Your task to perform on an android device: delete the emails in spam in the gmail app Image 0: 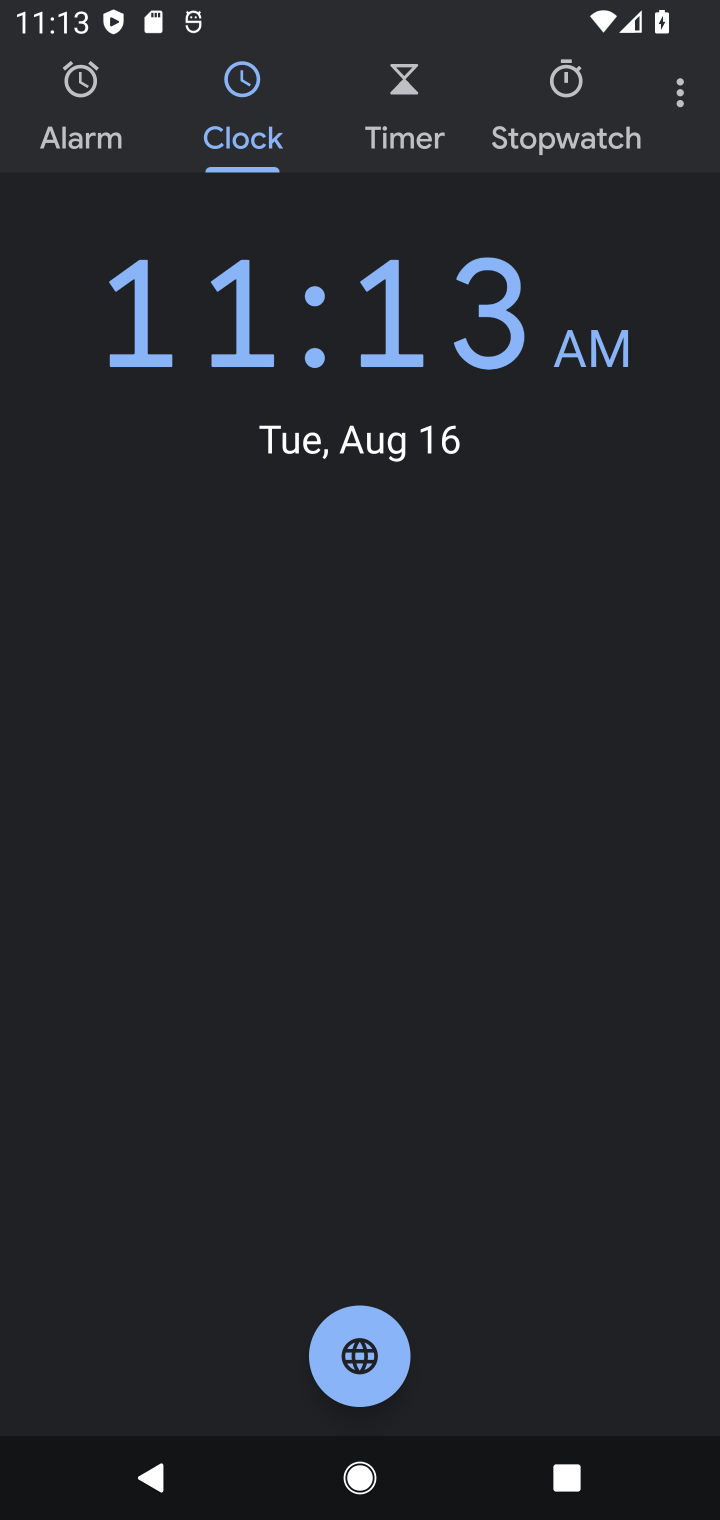
Step 0: press home button
Your task to perform on an android device: delete the emails in spam in the gmail app Image 1: 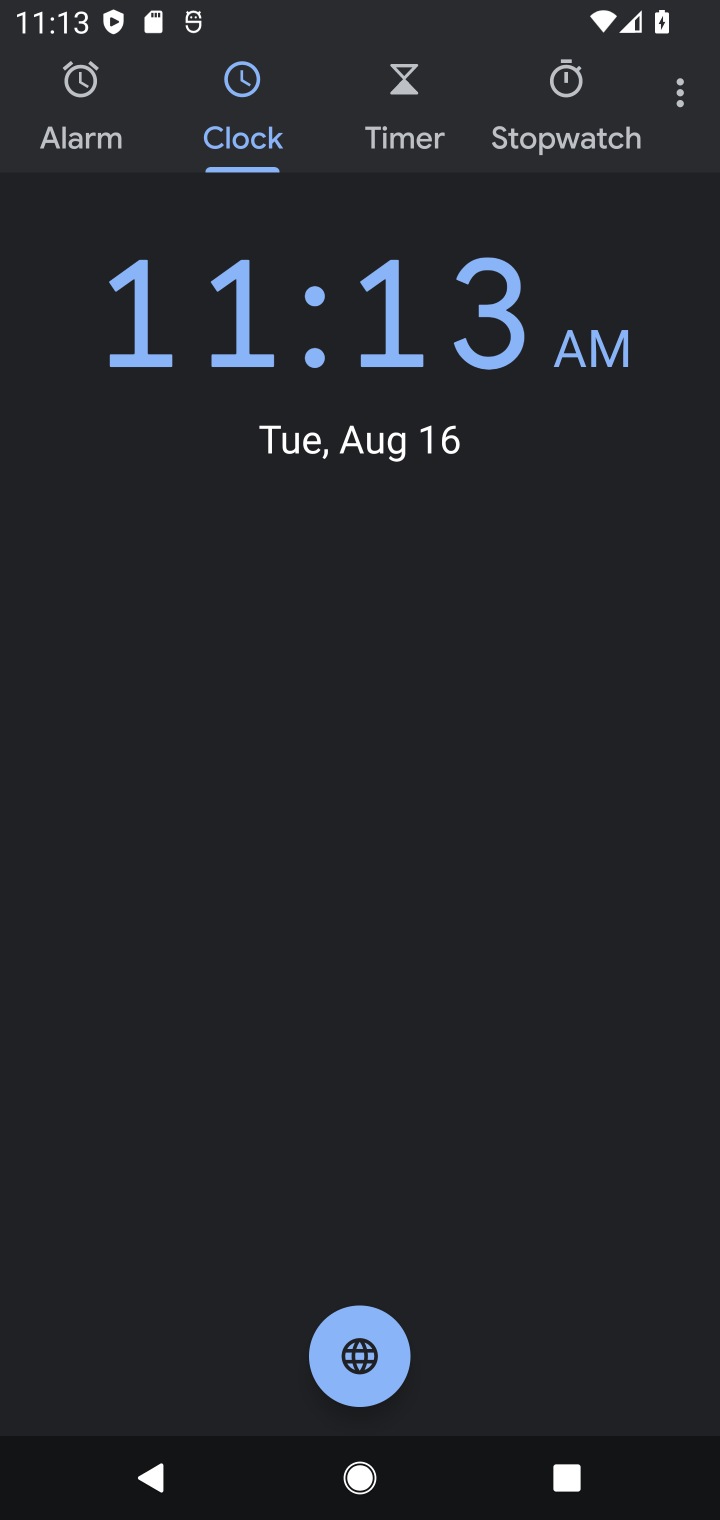
Step 1: press home button
Your task to perform on an android device: delete the emails in spam in the gmail app Image 2: 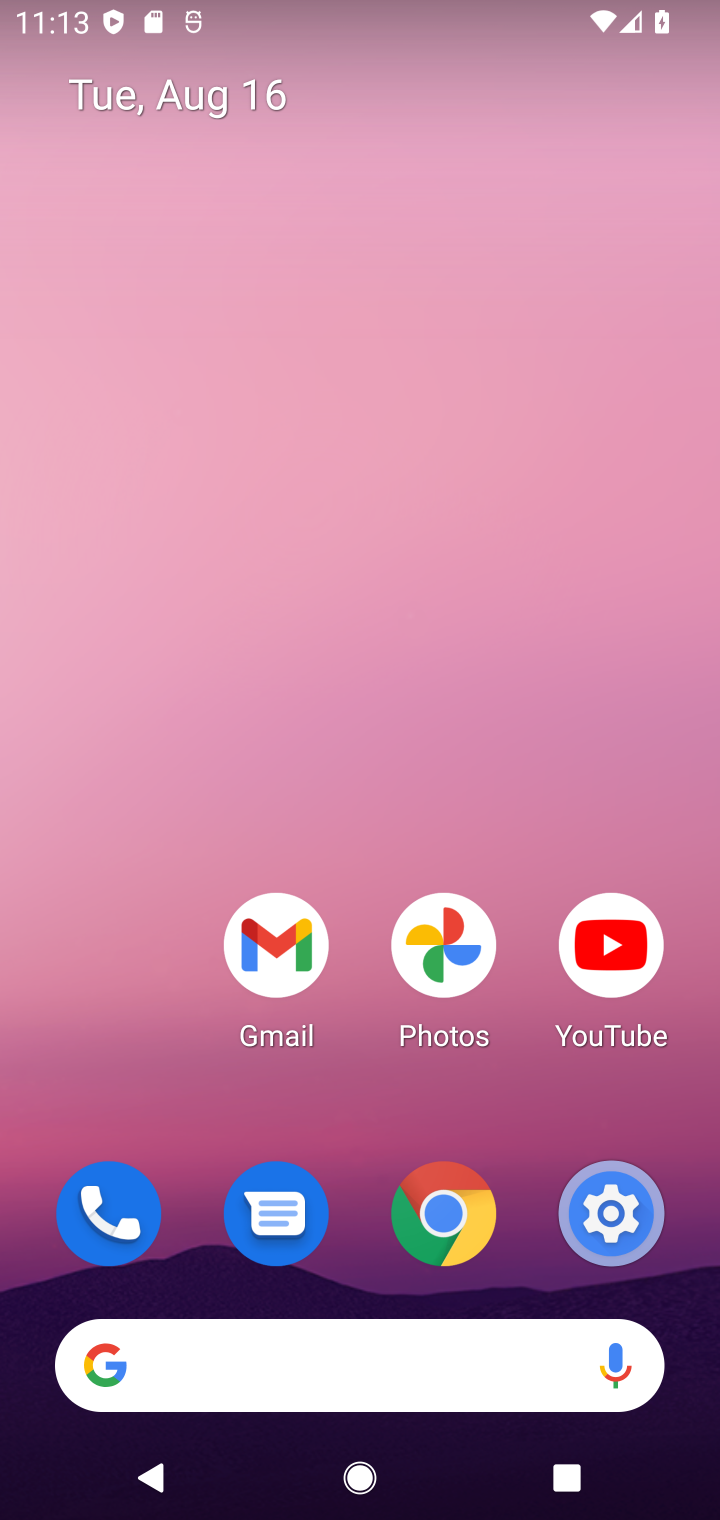
Step 2: click (267, 959)
Your task to perform on an android device: delete the emails in spam in the gmail app Image 3: 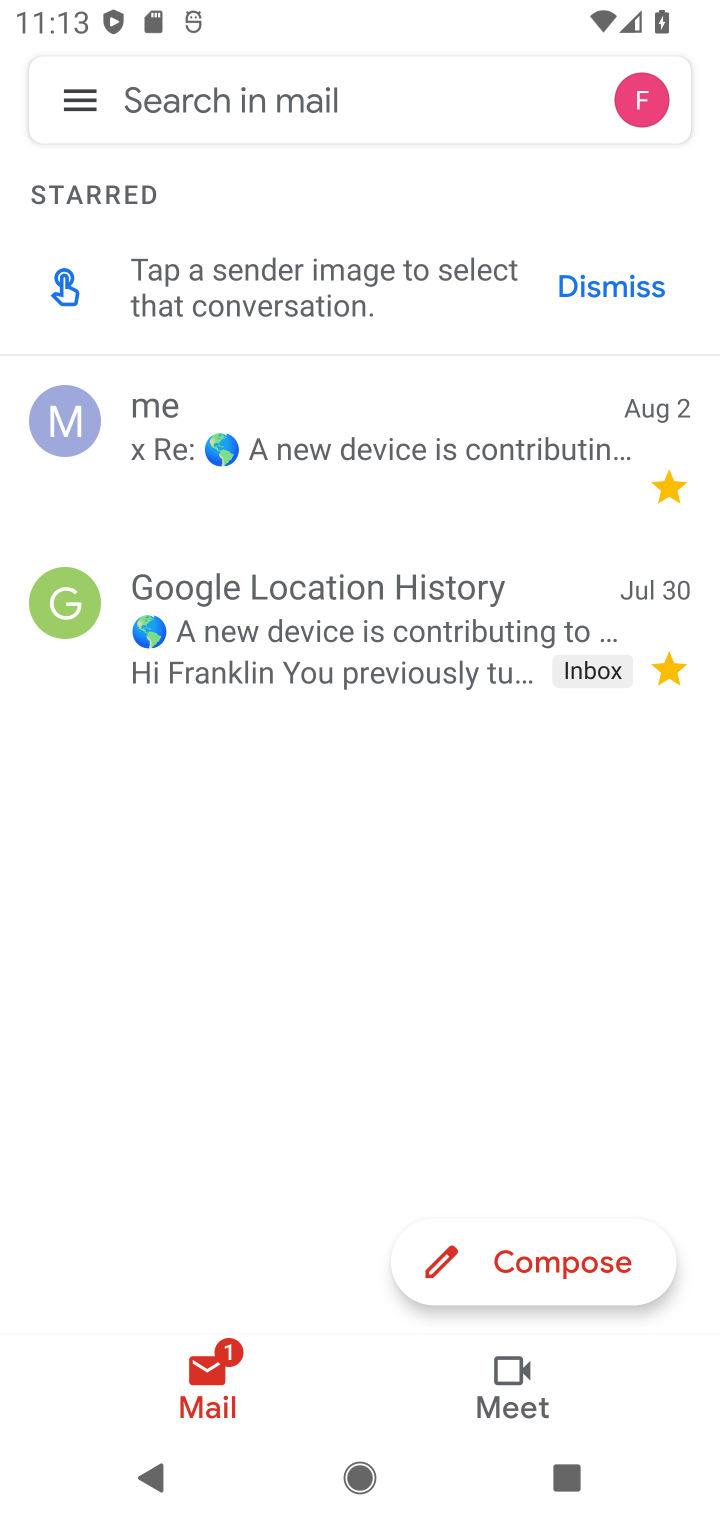
Step 3: click (70, 96)
Your task to perform on an android device: delete the emails in spam in the gmail app Image 4: 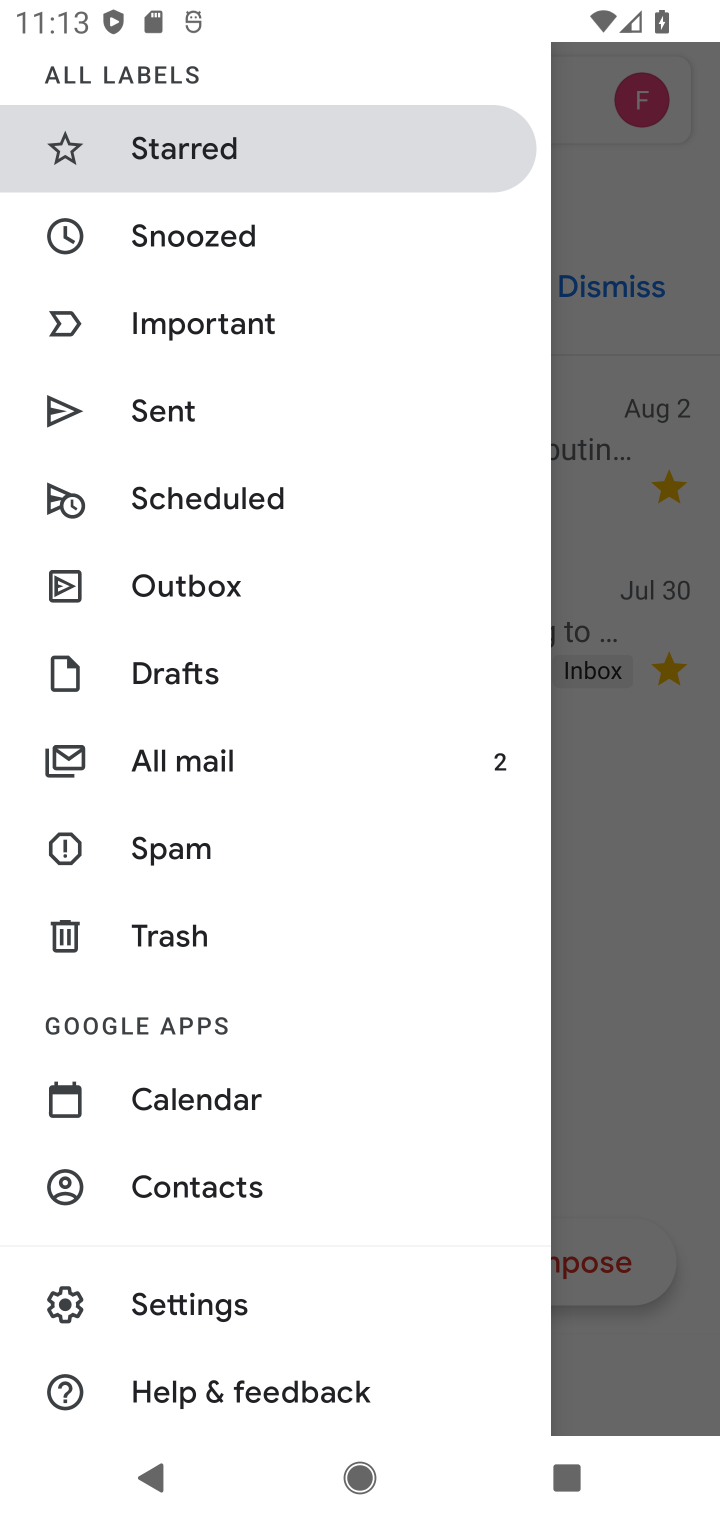
Step 4: click (132, 866)
Your task to perform on an android device: delete the emails in spam in the gmail app Image 5: 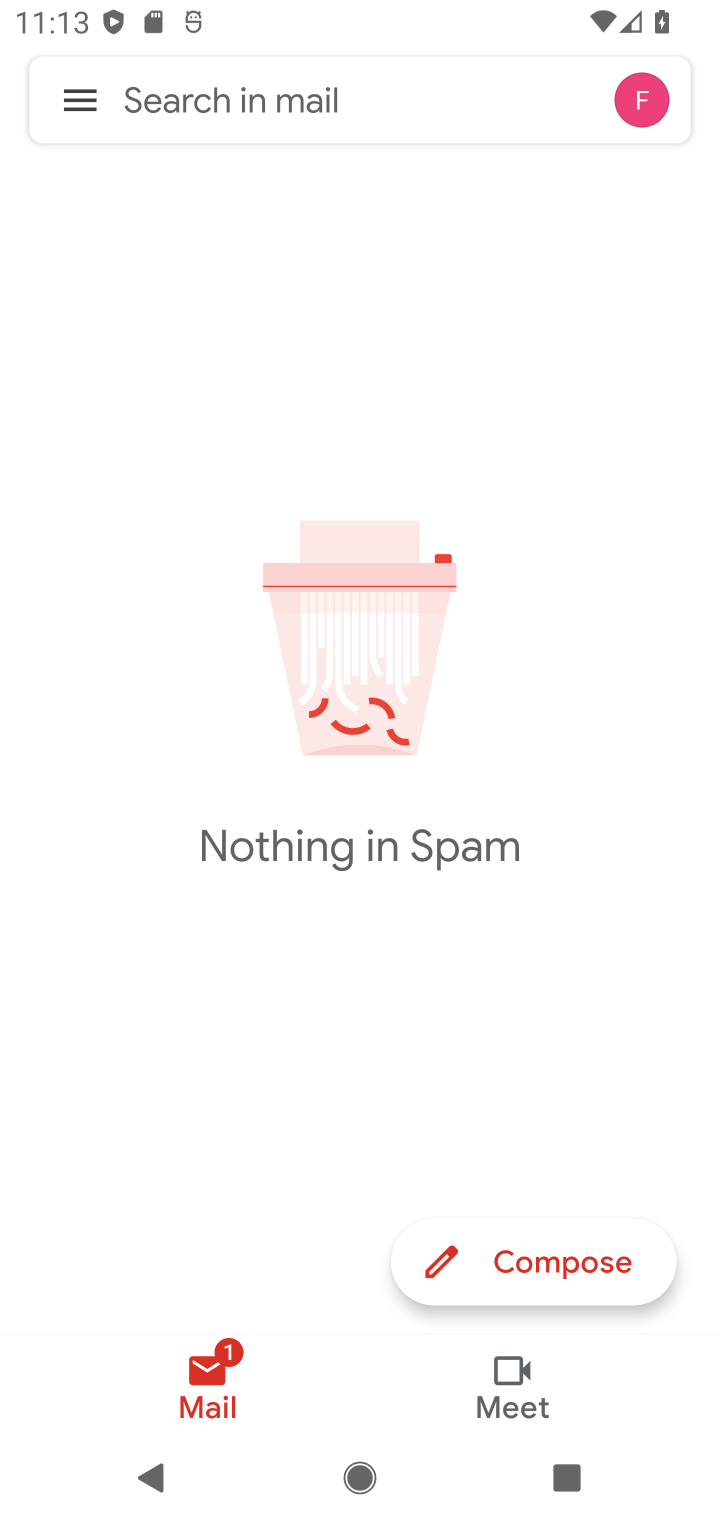
Step 5: task complete